Your task to perform on an android device: Open location settings Image 0: 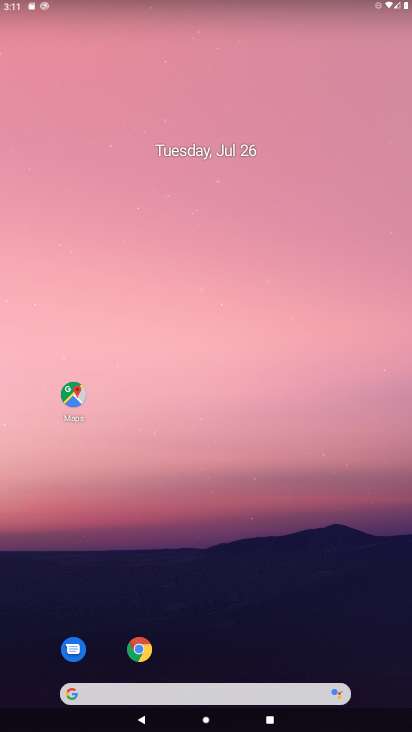
Step 0: drag from (187, 694) to (213, 130)
Your task to perform on an android device: Open location settings Image 1: 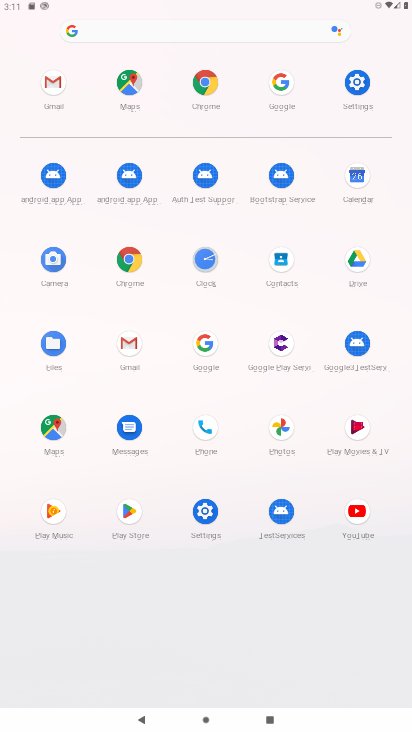
Step 1: click (360, 90)
Your task to perform on an android device: Open location settings Image 2: 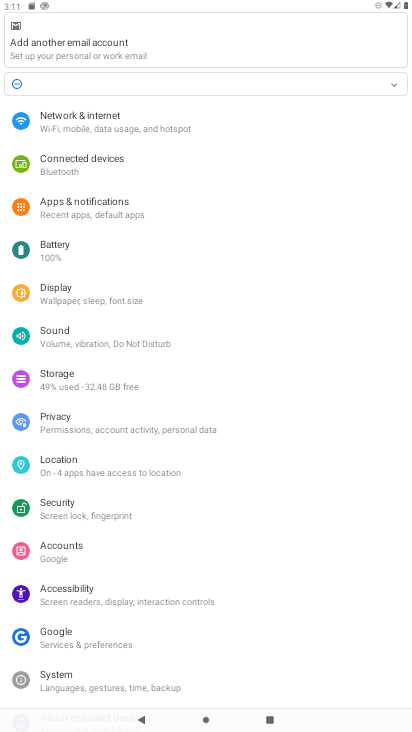
Step 2: click (101, 472)
Your task to perform on an android device: Open location settings Image 3: 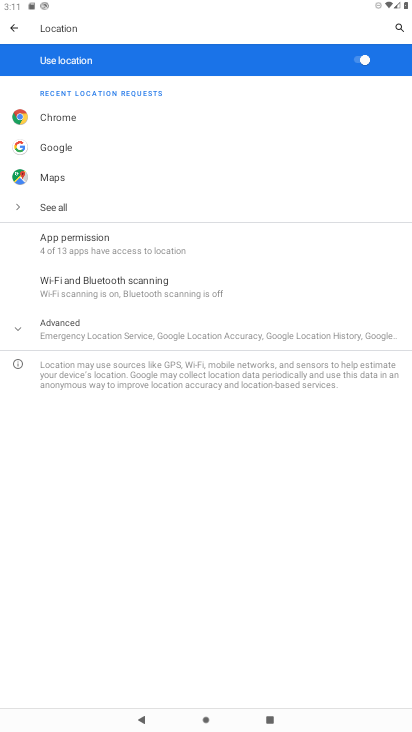
Step 3: task complete